Your task to perform on an android device: make emails show in primary in the gmail app Image 0: 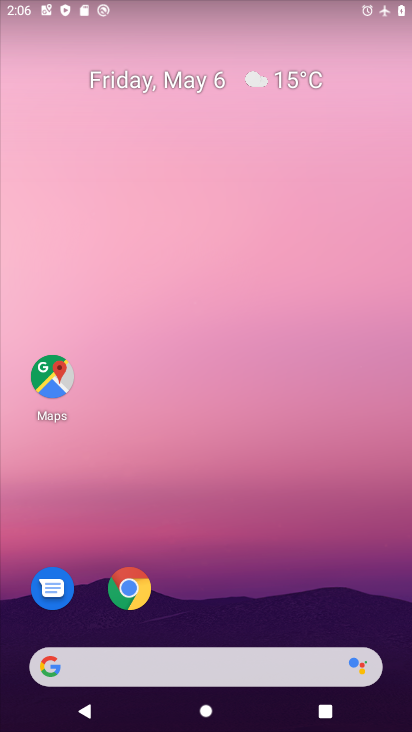
Step 0: drag from (243, 586) to (37, 20)
Your task to perform on an android device: make emails show in primary in the gmail app Image 1: 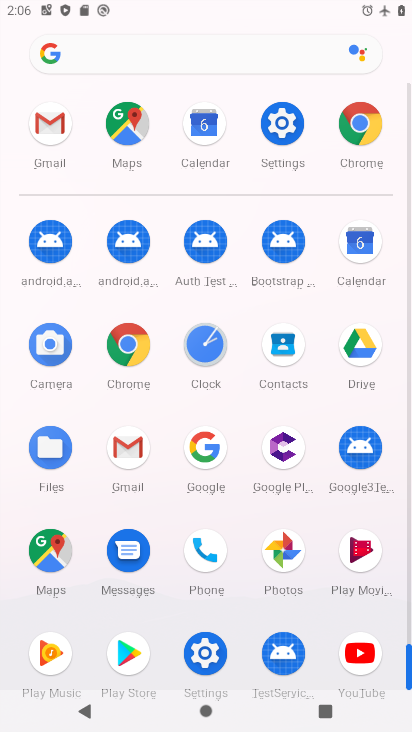
Step 1: click (127, 442)
Your task to perform on an android device: make emails show in primary in the gmail app Image 2: 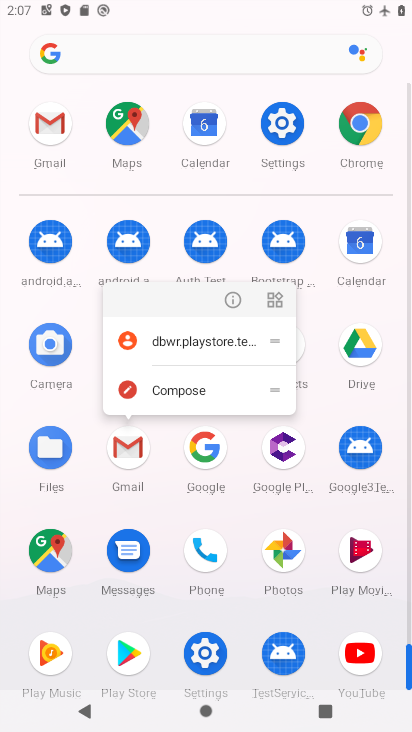
Step 2: click (235, 315)
Your task to perform on an android device: make emails show in primary in the gmail app Image 3: 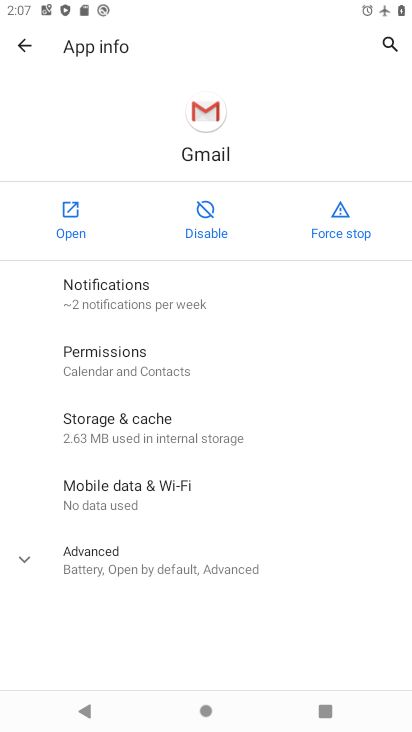
Step 3: click (84, 217)
Your task to perform on an android device: make emails show in primary in the gmail app Image 4: 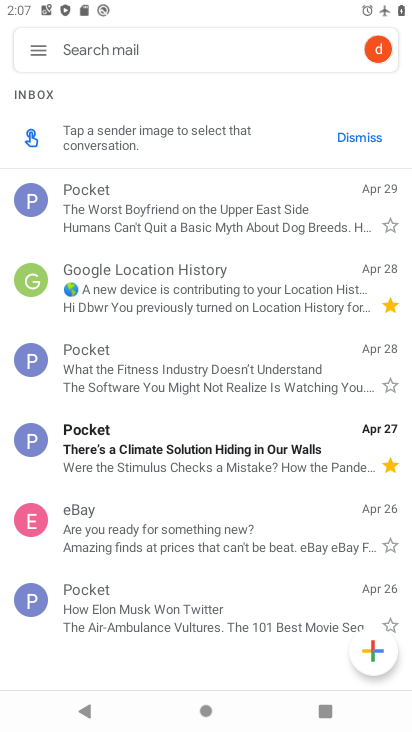
Step 4: click (33, 55)
Your task to perform on an android device: make emails show in primary in the gmail app Image 5: 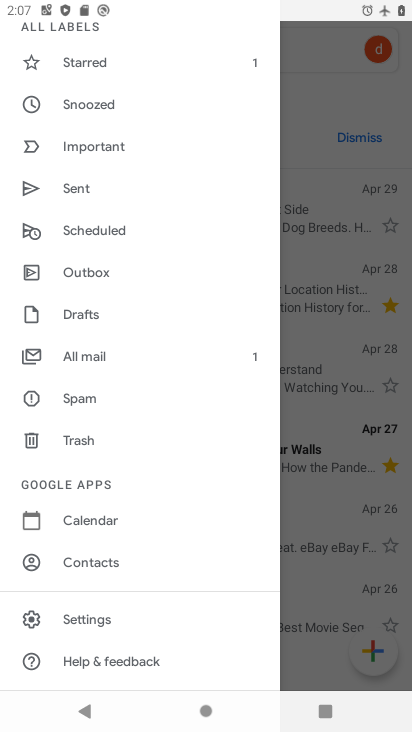
Step 5: drag from (104, 634) to (114, 273)
Your task to perform on an android device: make emails show in primary in the gmail app Image 6: 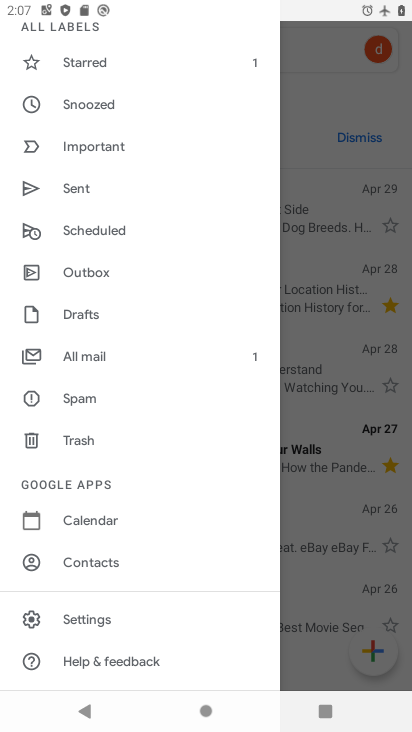
Step 6: drag from (125, 104) to (202, 663)
Your task to perform on an android device: make emails show in primary in the gmail app Image 7: 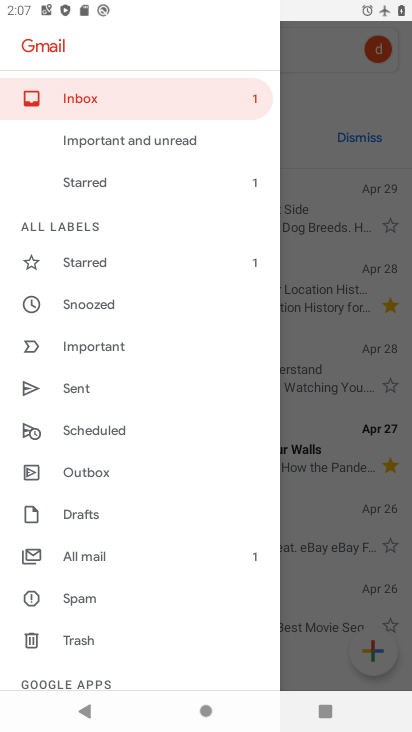
Step 7: click (99, 96)
Your task to perform on an android device: make emails show in primary in the gmail app Image 8: 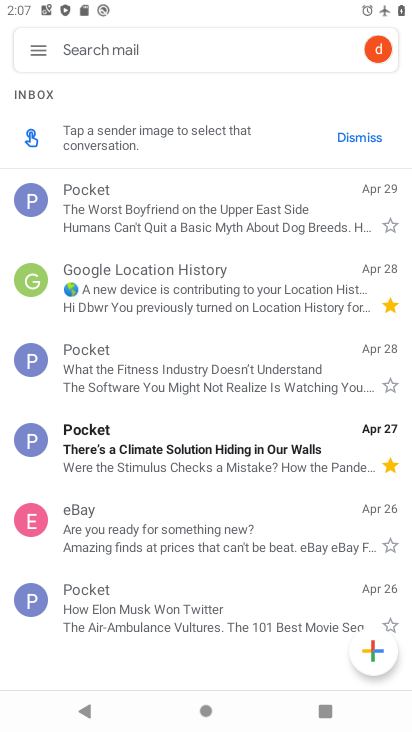
Step 8: drag from (160, 594) to (183, 267)
Your task to perform on an android device: make emails show in primary in the gmail app Image 9: 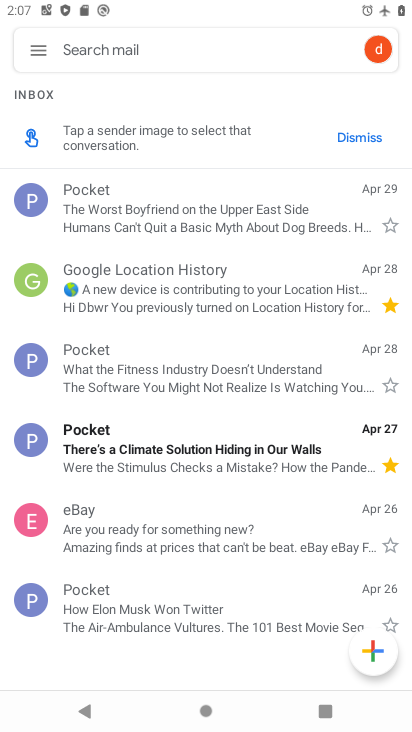
Step 9: drag from (171, 169) to (267, 443)
Your task to perform on an android device: make emails show in primary in the gmail app Image 10: 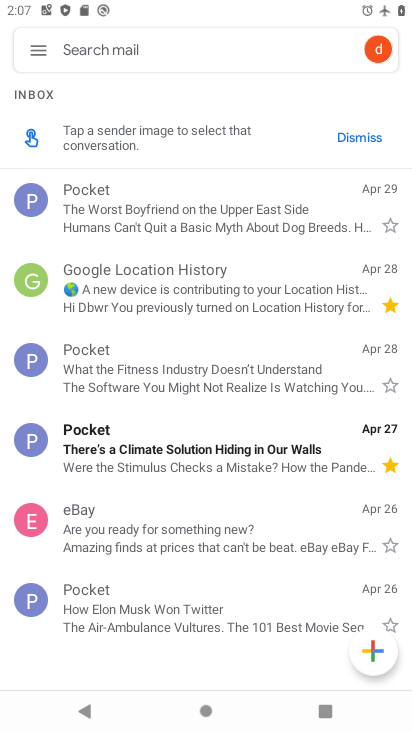
Step 10: drag from (173, 221) to (351, 615)
Your task to perform on an android device: make emails show in primary in the gmail app Image 11: 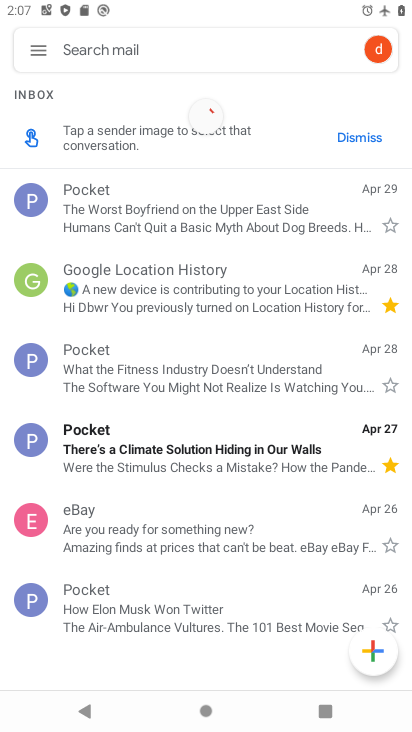
Step 11: drag from (264, 208) to (313, 619)
Your task to perform on an android device: make emails show in primary in the gmail app Image 12: 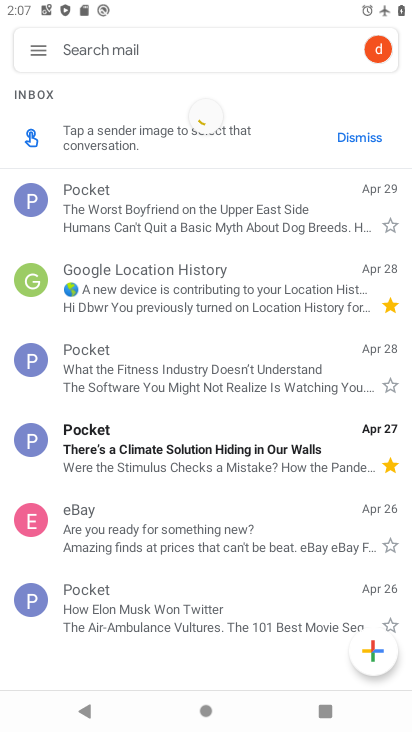
Step 12: click (28, 41)
Your task to perform on an android device: make emails show in primary in the gmail app Image 13: 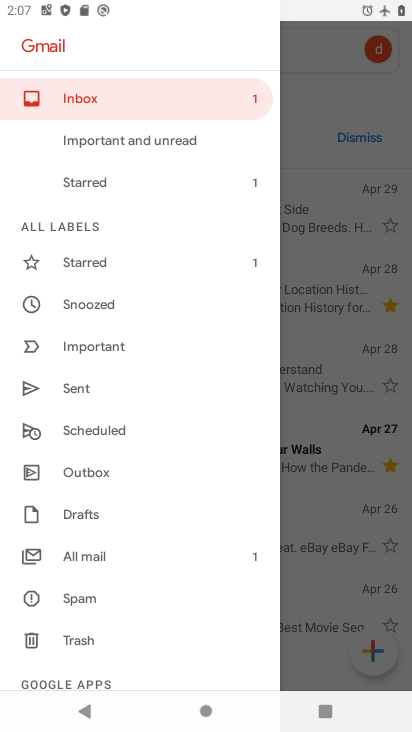
Step 13: click (86, 104)
Your task to perform on an android device: make emails show in primary in the gmail app Image 14: 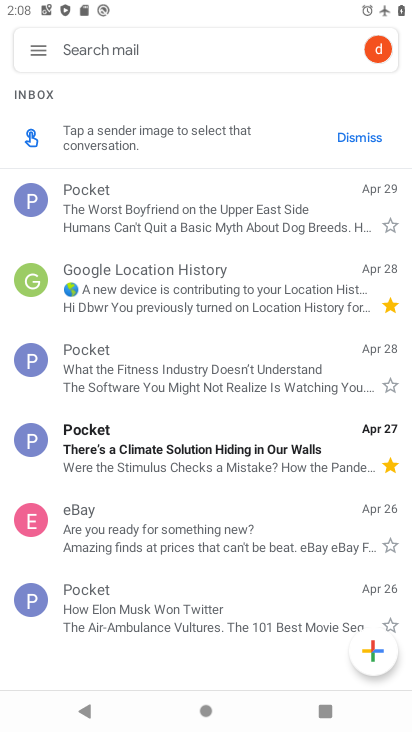
Step 14: click (31, 46)
Your task to perform on an android device: make emails show in primary in the gmail app Image 15: 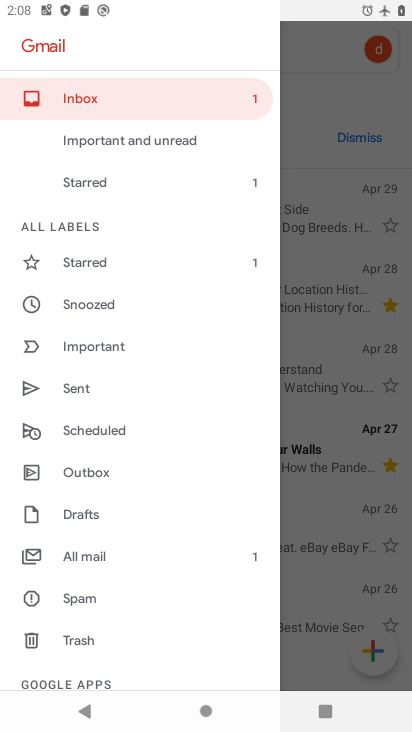
Step 15: click (126, 101)
Your task to perform on an android device: make emails show in primary in the gmail app Image 16: 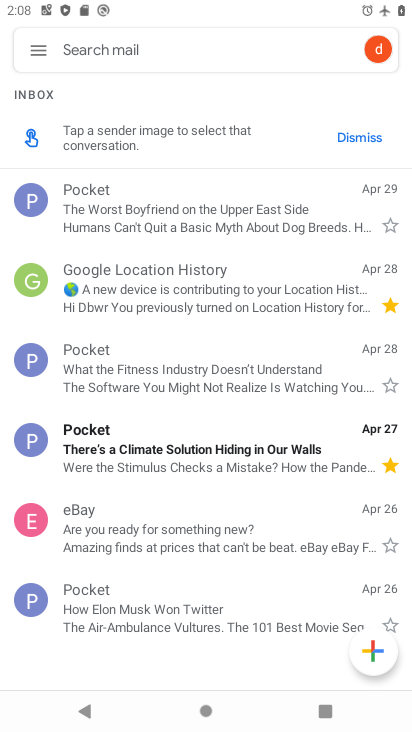
Step 16: task complete